Your task to perform on an android device: Open Google Chrome Image 0: 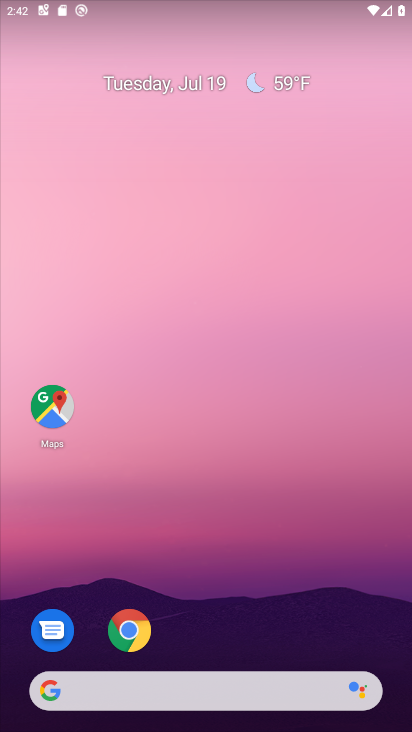
Step 0: click (128, 633)
Your task to perform on an android device: Open Google Chrome Image 1: 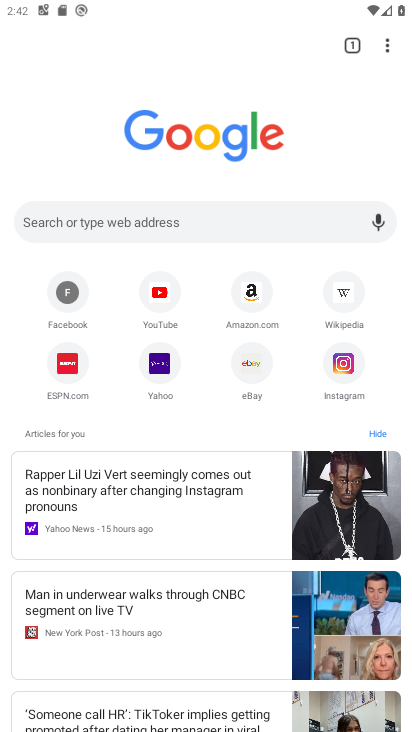
Step 1: task complete